Your task to perform on an android device: see tabs open on other devices in the chrome app Image 0: 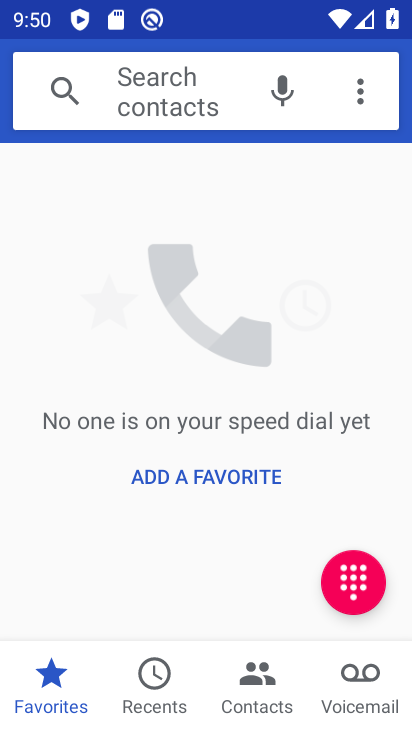
Step 0: press home button
Your task to perform on an android device: see tabs open on other devices in the chrome app Image 1: 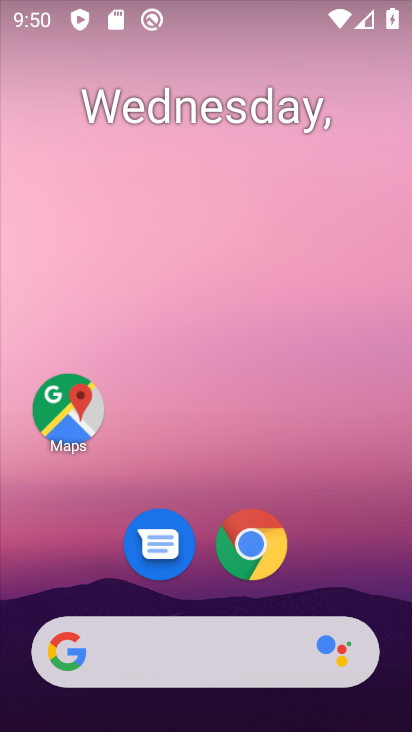
Step 1: click (249, 542)
Your task to perform on an android device: see tabs open on other devices in the chrome app Image 2: 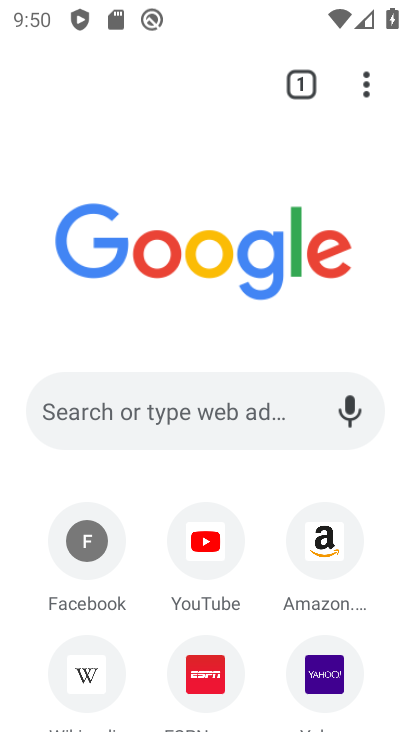
Step 2: click (365, 91)
Your task to perform on an android device: see tabs open on other devices in the chrome app Image 3: 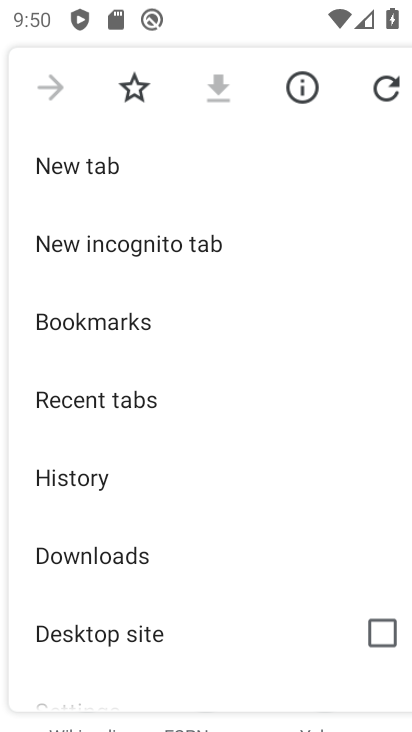
Step 3: click (88, 402)
Your task to perform on an android device: see tabs open on other devices in the chrome app Image 4: 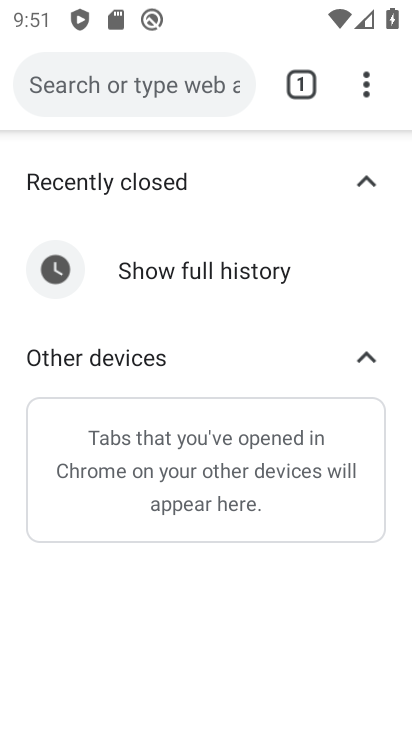
Step 4: task complete